Your task to perform on an android device: open a bookmark in the chrome app Image 0: 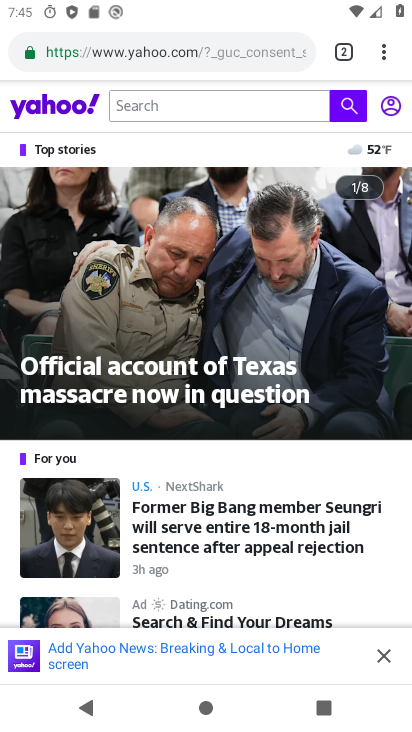
Step 0: press home button
Your task to perform on an android device: open a bookmark in the chrome app Image 1: 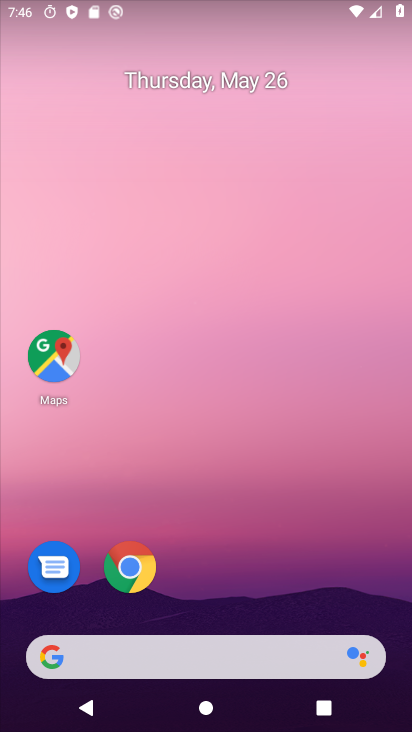
Step 1: click (133, 568)
Your task to perform on an android device: open a bookmark in the chrome app Image 2: 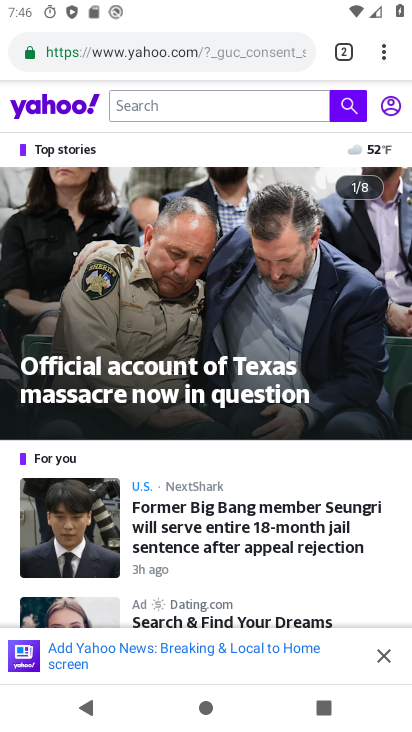
Step 2: task complete